Your task to perform on an android device: Open notification settings Image 0: 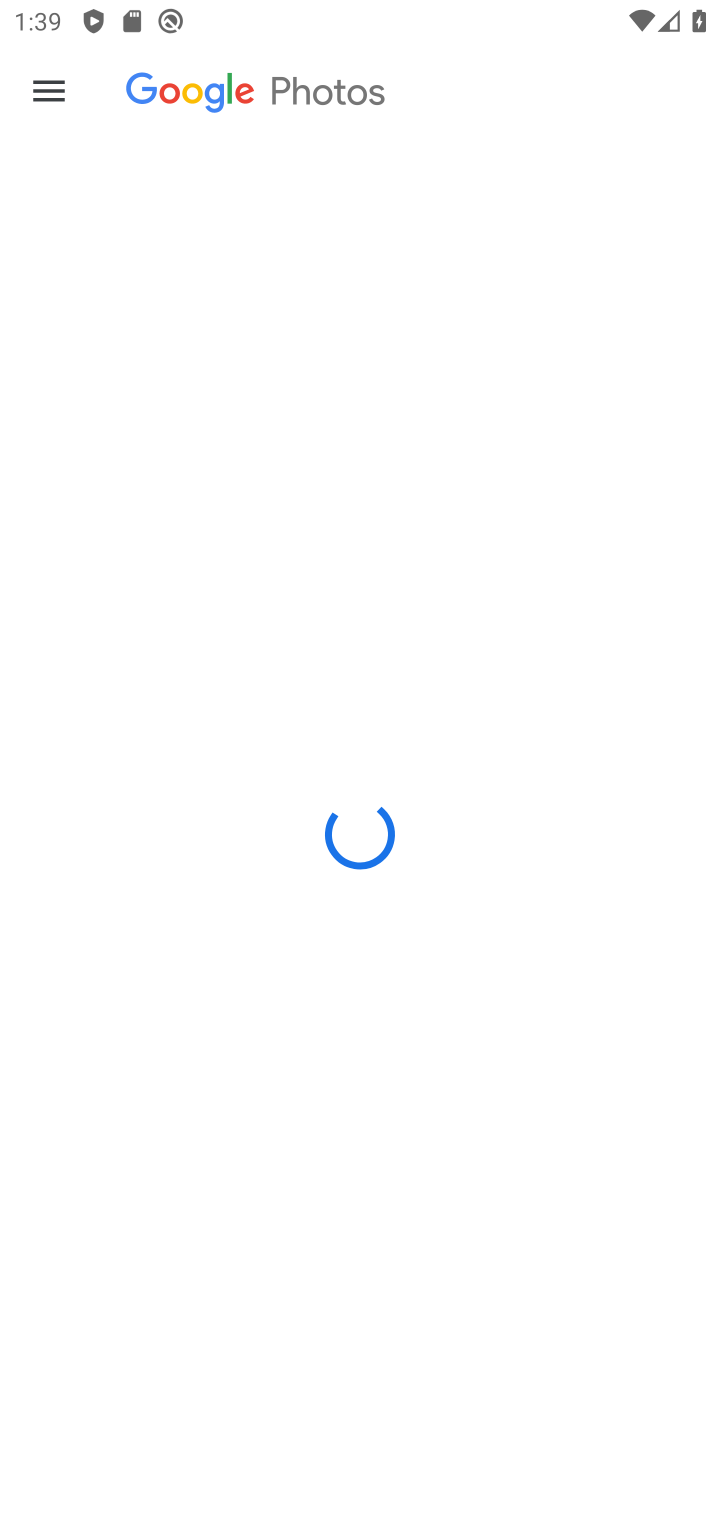
Step 0: press home button
Your task to perform on an android device: Open notification settings Image 1: 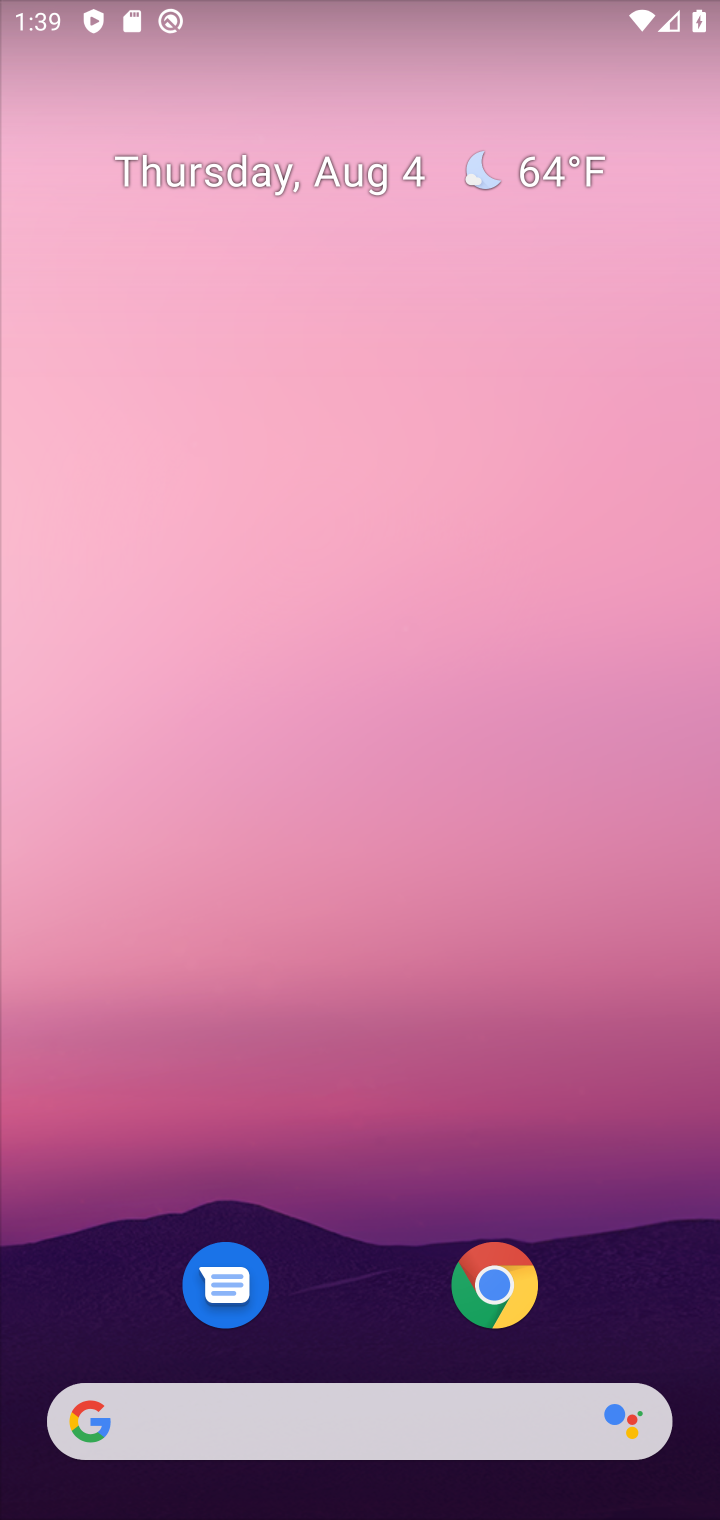
Step 1: drag from (632, 1308) to (624, 306)
Your task to perform on an android device: Open notification settings Image 2: 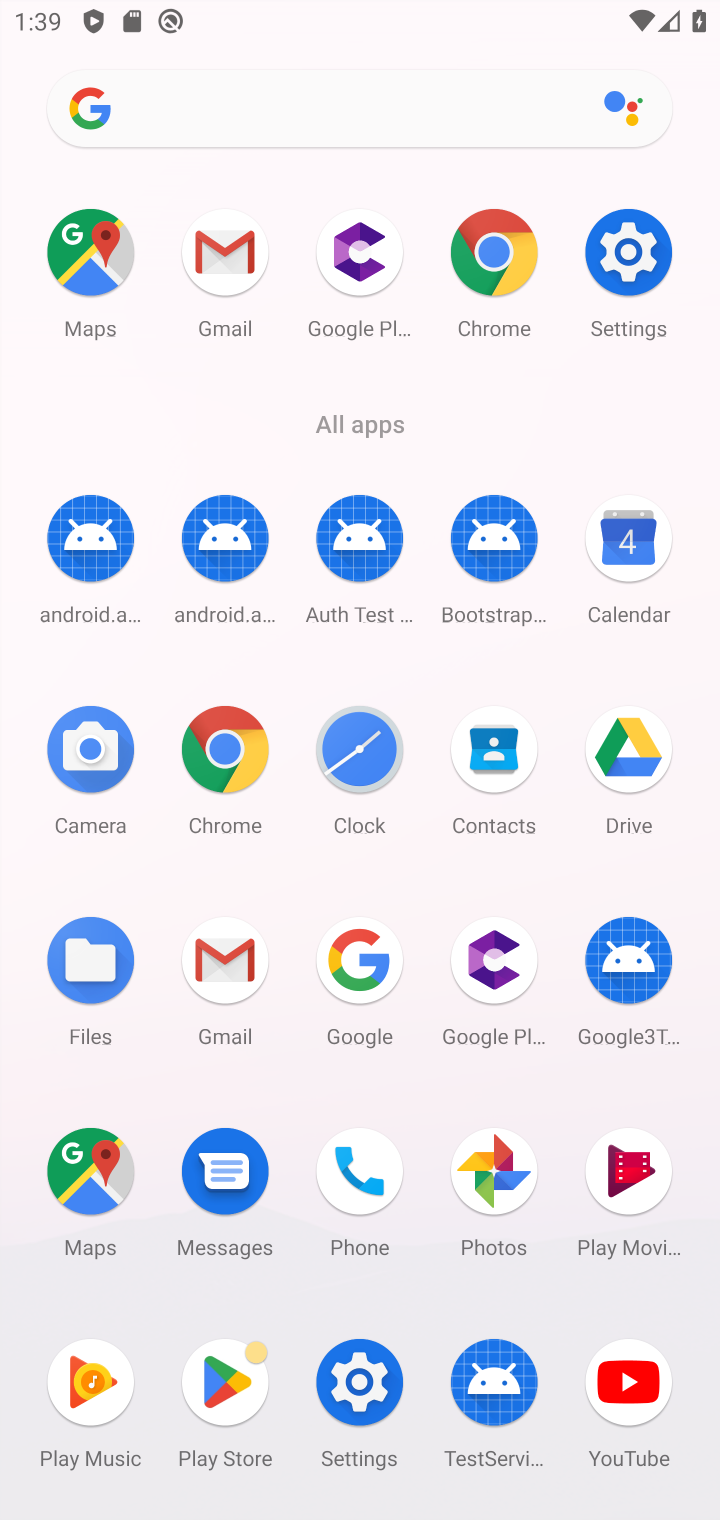
Step 2: click (360, 1383)
Your task to perform on an android device: Open notification settings Image 3: 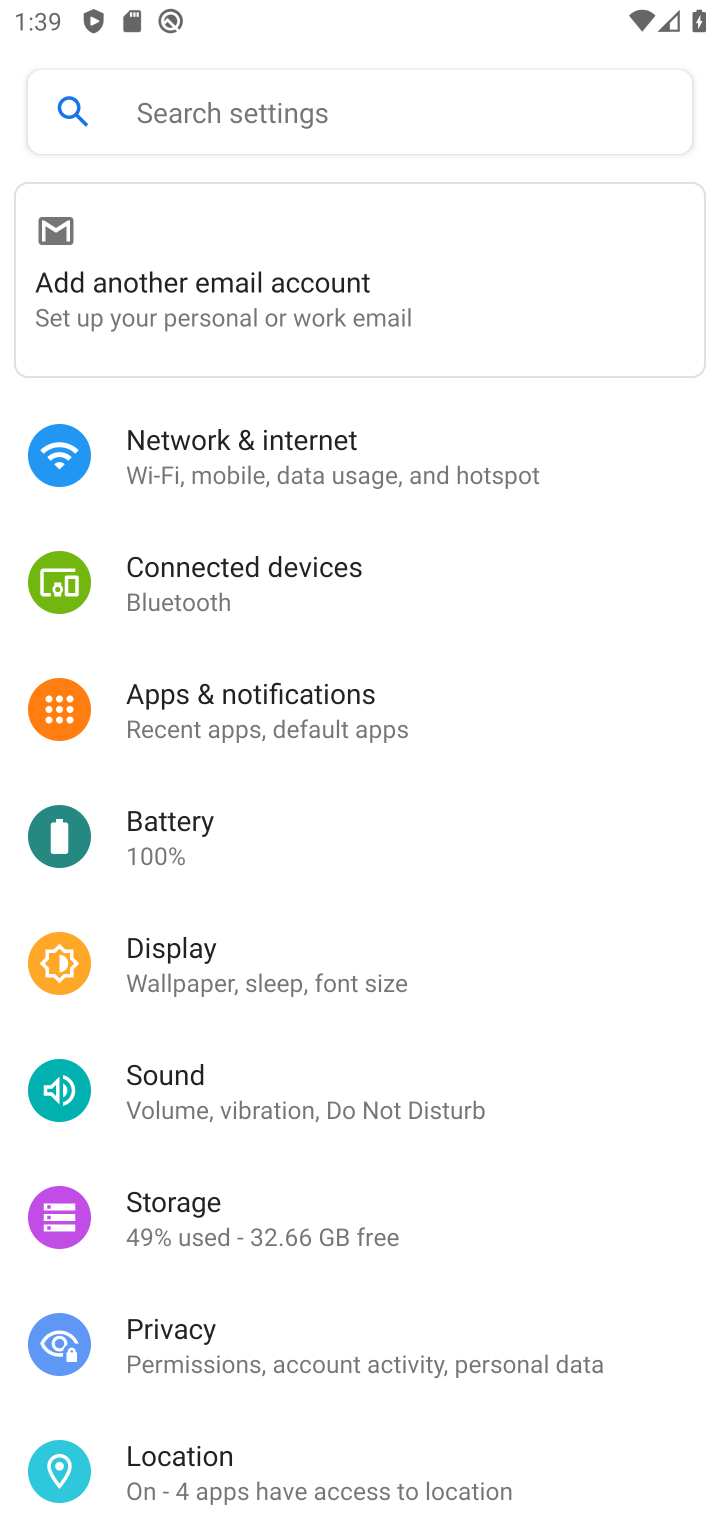
Step 3: click (216, 704)
Your task to perform on an android device: Open notification settings Image 4: 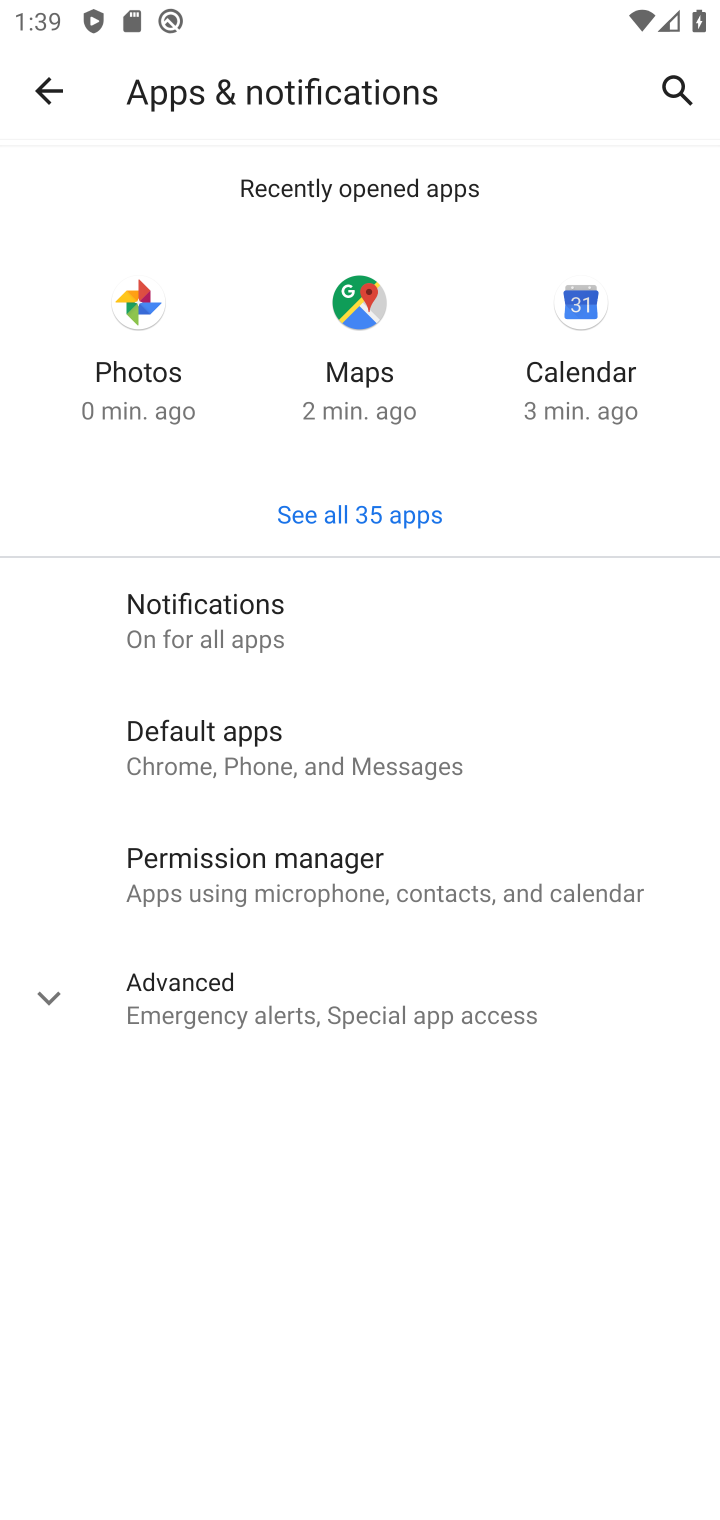
Step 4: click (187, 606)
Your task to perform on an android device: Open notification settings Image 5: 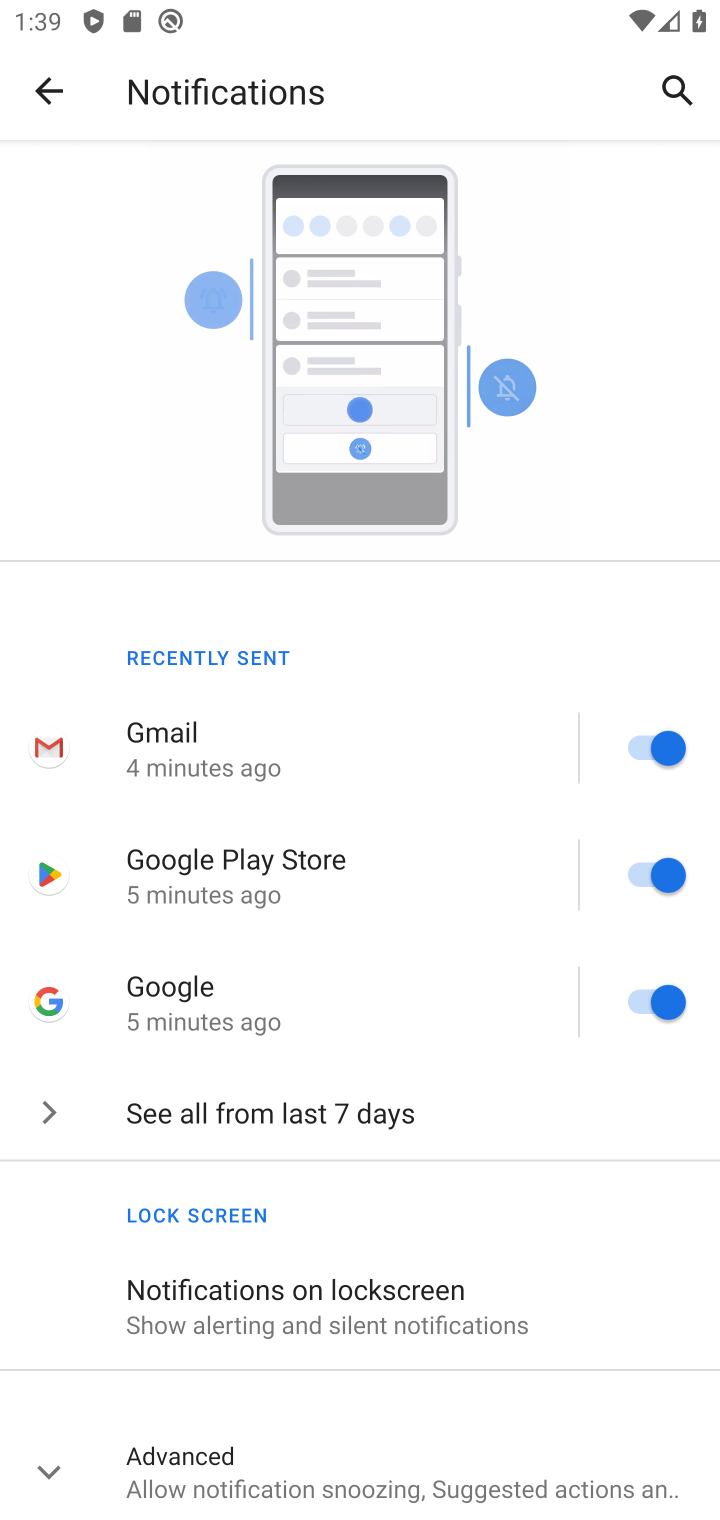
Step 5: task complete